Your task to perform on an android device: see sites visited before in the chrome app Image 0: 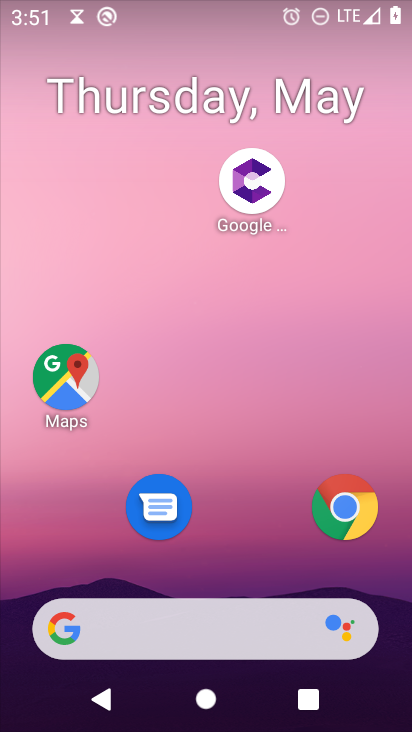
Step 0: press home button
Your task to perform on an android device: see sites visited before in the chrome app Image 1: 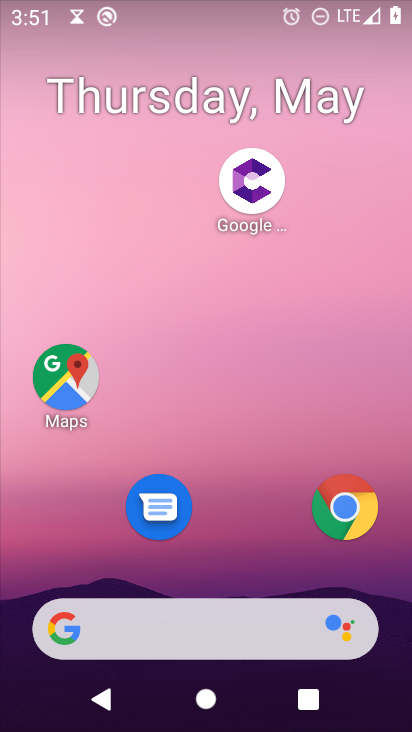
Step 1: click (367, 498)
Your task to perform on an android device: see sites visited before in the chrome app Image 2: 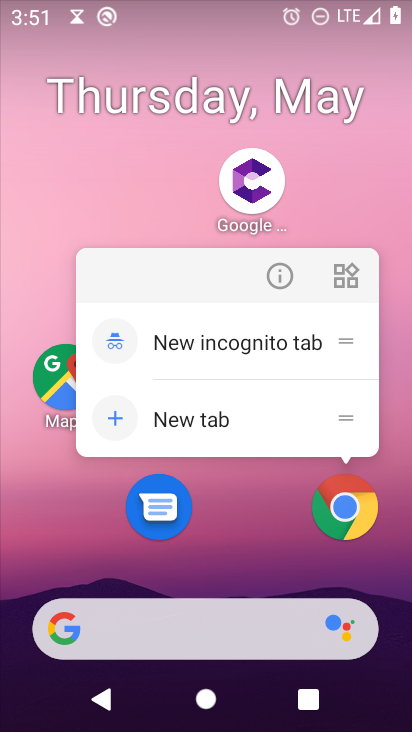
Step 2: click (357, 518)
Your task to perform on an android device: see sites visited before in the chrome app Image 3: 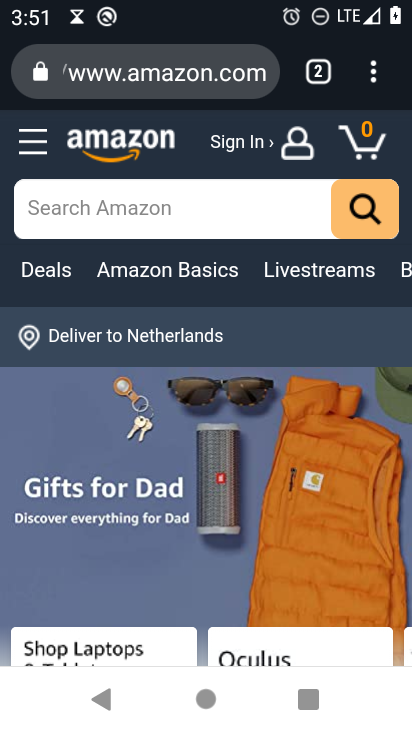
Step 3: task complete